Your task to perform on an android device: Go to wifi settings Image 0: 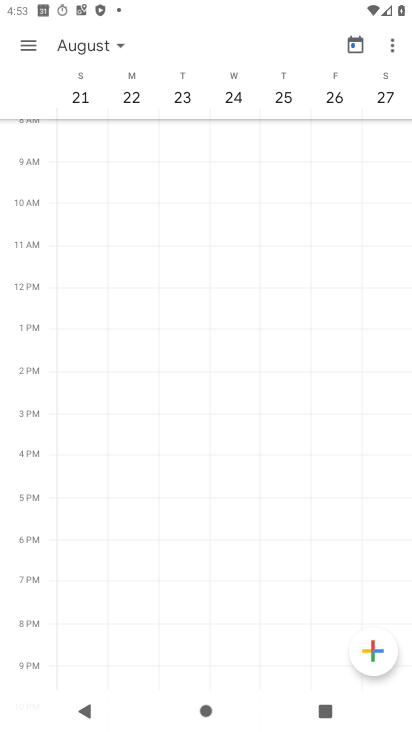
Step 0: press home button
Your task to perform on an android device: Go to wifi settings Image 1: 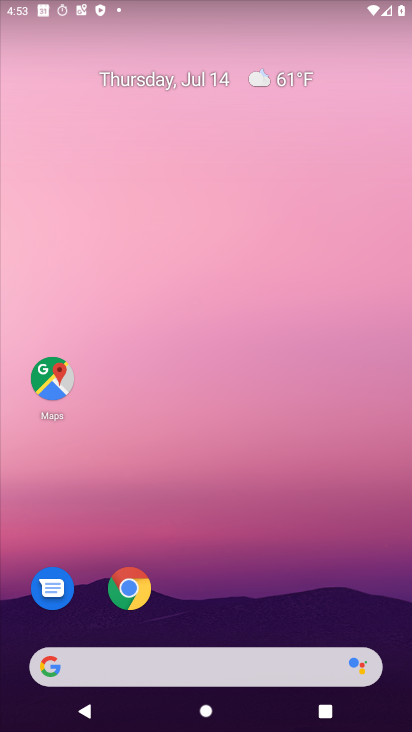
Step 1: drag from (233, 666) to (270, 66)
Your task to perform on an android device: Go to wifi settings Image 2: 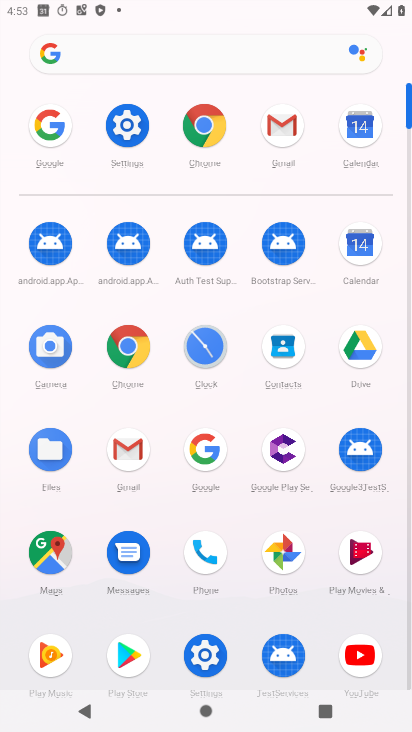
Step 2: click (124, 124)
Your task to perform on an android device: Go to wifi settings Image 3: 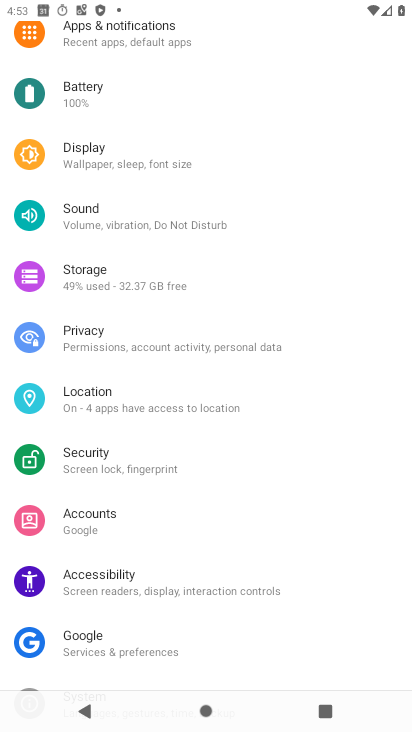
Step 3: drag from (124, 124) to (169, 411)
Your task to perform on an android device: Go to wifi settings Image 4: 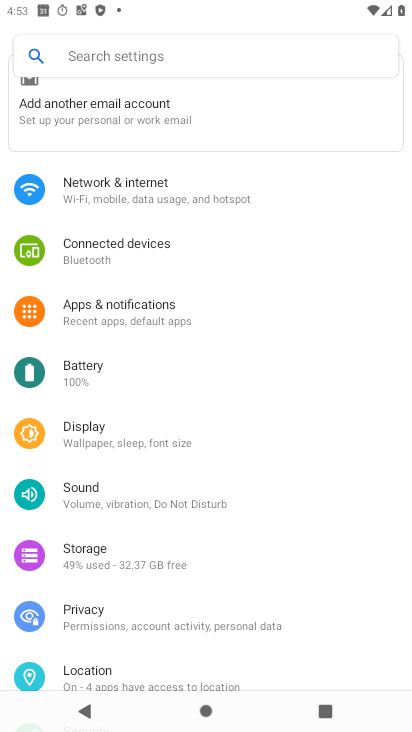
Step 4: click (169, 196)
Your task to perform on an android device: Go to wifi settings Image 5: 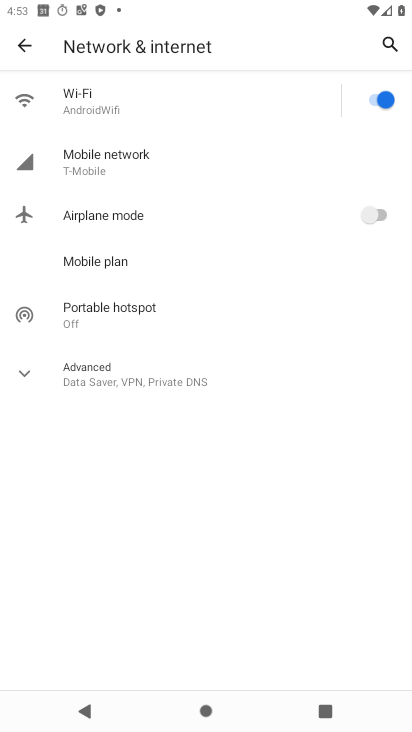
Step 5: click (94, 111)
Your task to perform on an android device: Go to wifi settings Image 6: 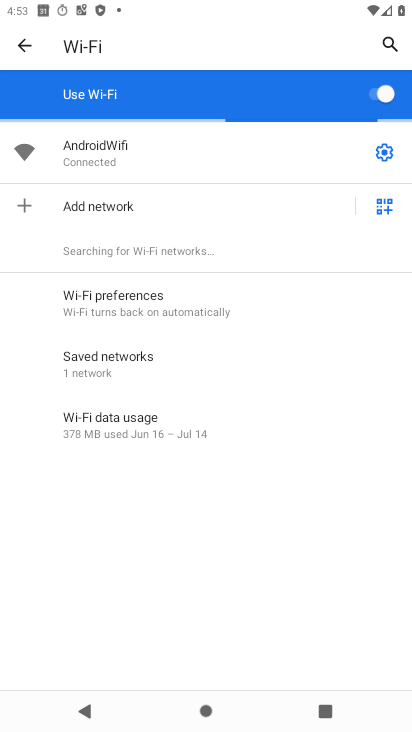
Step 6: click (383, 152)
Your task to perform on an android device: Go to wifi settings Image 7: 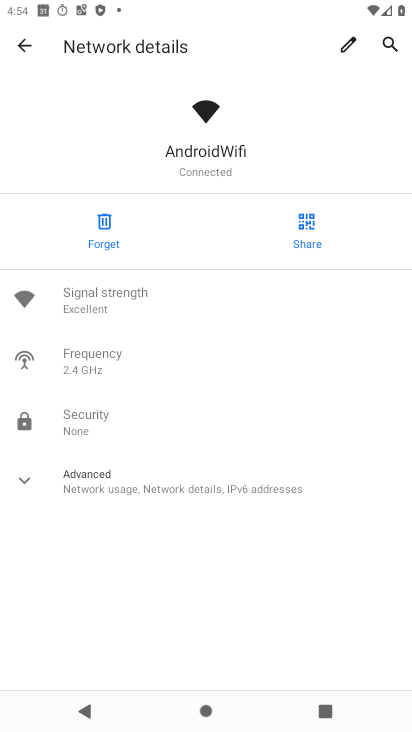
Step 7: task complete